Your task to perform on an android device: Go to sound settings Image 0: 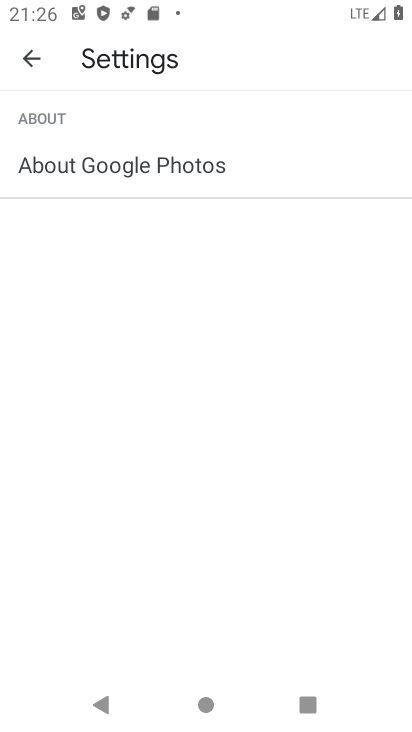
Step 0: press home button
Your task to perform on an android device: Go to sound settings Image 1: 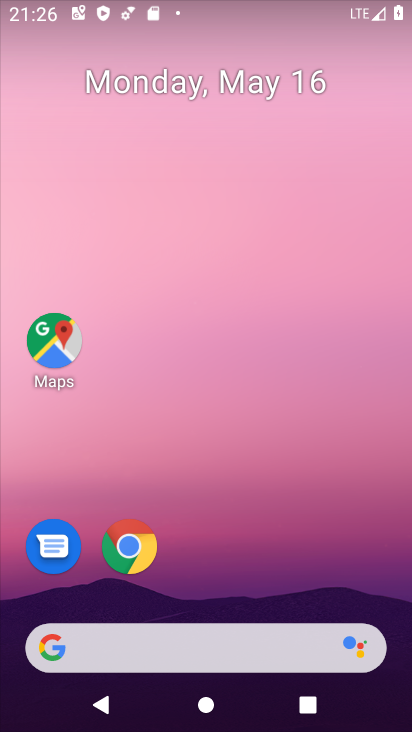
Step 1: drag from (258, 676) to (186, 206)
Your task to perform on an android device: Go to sound settings Image 2: 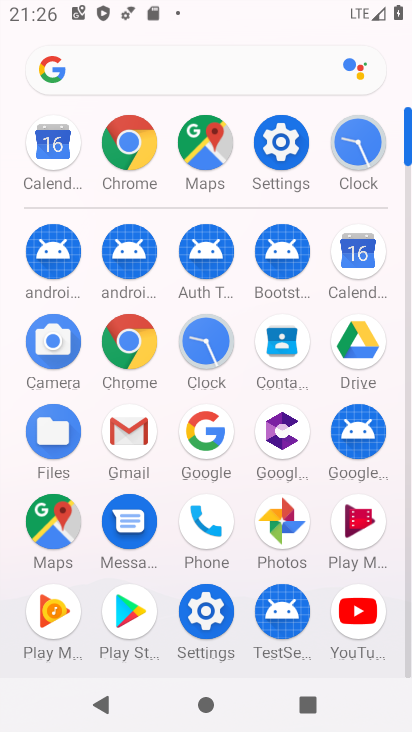
Step 2: click (289, 152)
Your task to perform on an android device: Go to sound settings Image 3: 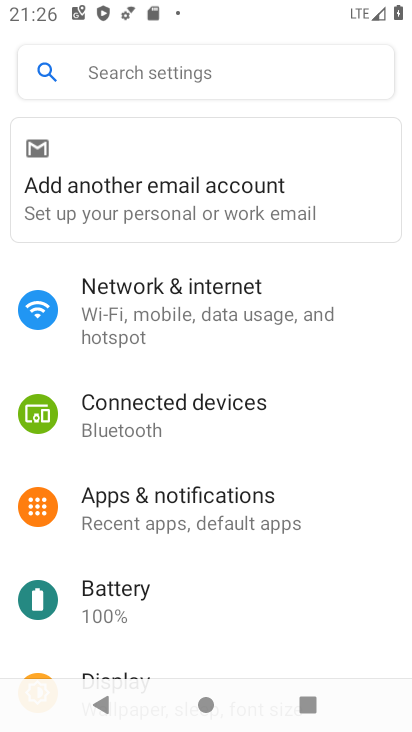
Step 3: click (152, 63)
Your task to perform on an android device: Go to sound settings Image 4: 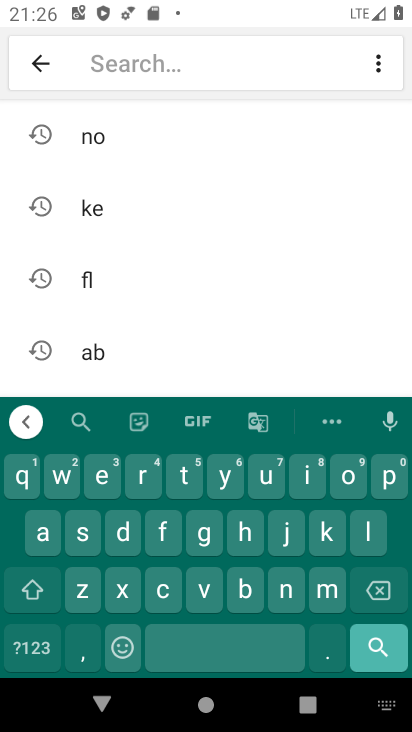
Step 4: click (92, 545)
Your task to perform on an android device: Go to sound settings Image 5: 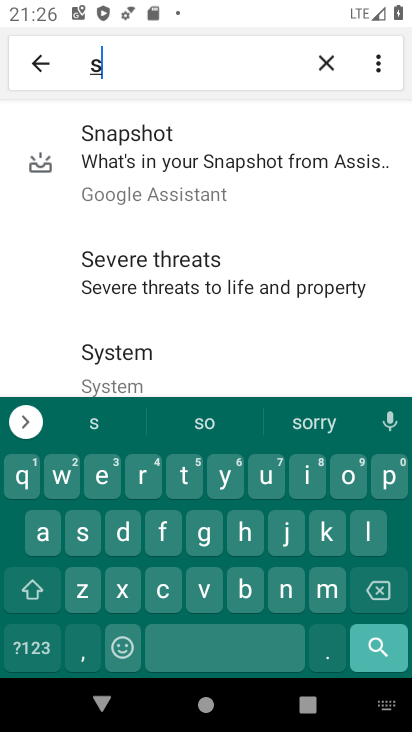
Step 5: click (354, 482)
Your task to perform on an android device: Go to sound settings Image 6: 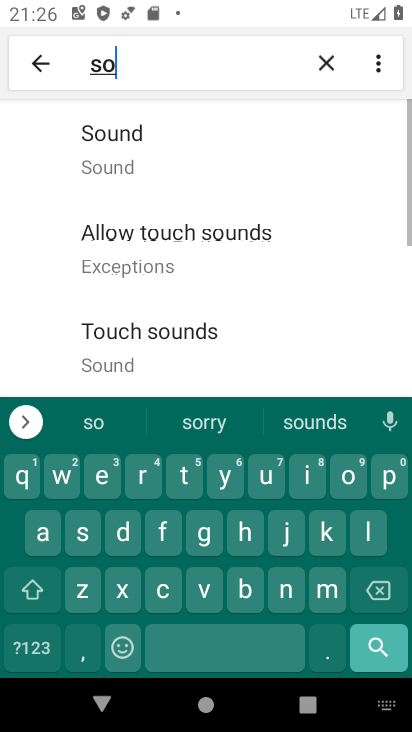
Step 6: click (255, 484)
Your task to perform on an android device: Go to sound settings Image 7: 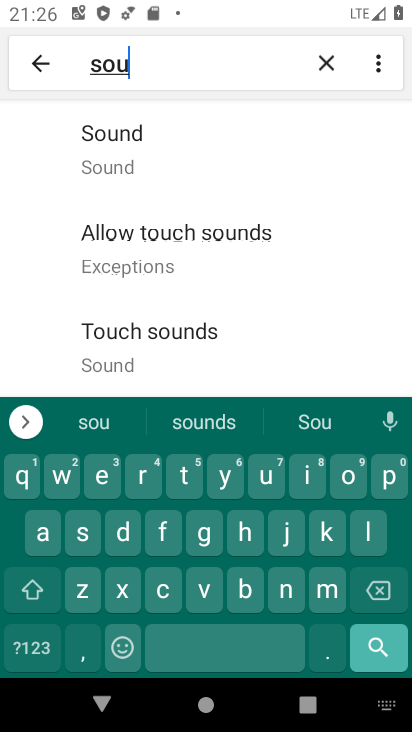
Step 7: click (99, 162)
Your task to perform on an android device: Go to sound settings Image 8: 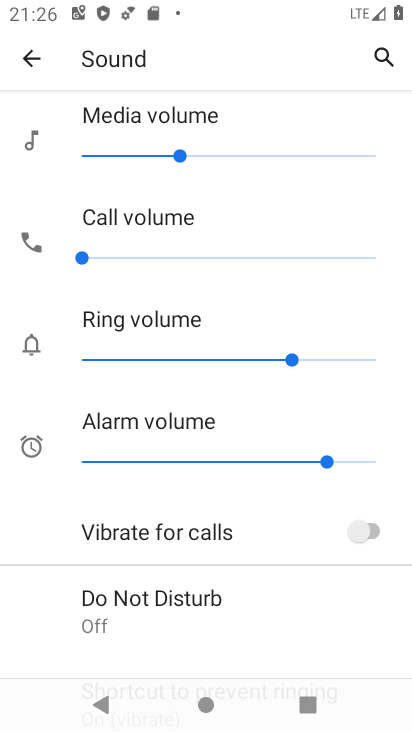
Step 8: task complete